Your task to perform on an android device: snooze an email in the gmail app Image 0: 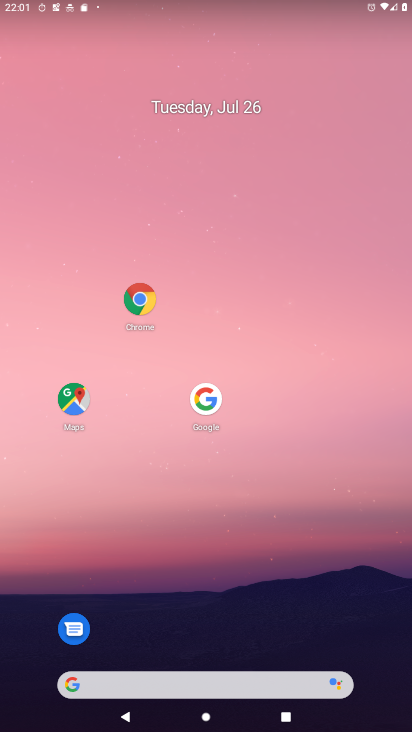
Step 0: press back button
Your task to perform on an android device: snooze an email in the gmail app Image 1: 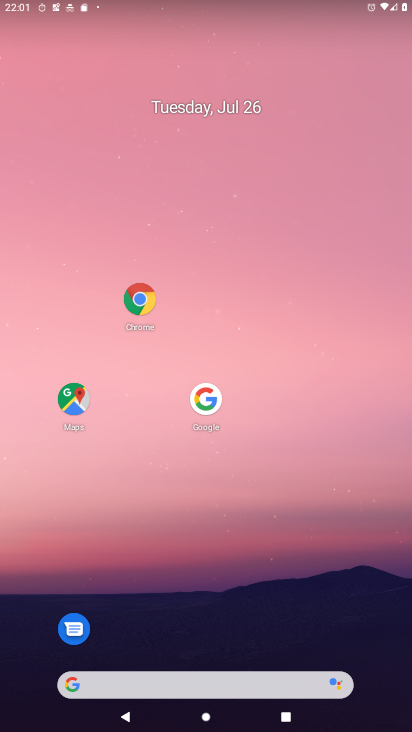
Step 1: press back button
Your task to perform on an android device: snooze an email in the gmail app Image 2: 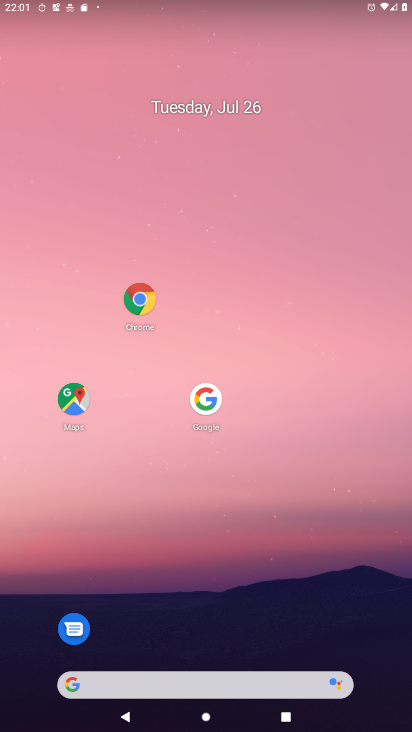
Step 2: click (95, 19)
Your task to perform on an android device: snooze an email in the gmail app Image 3: 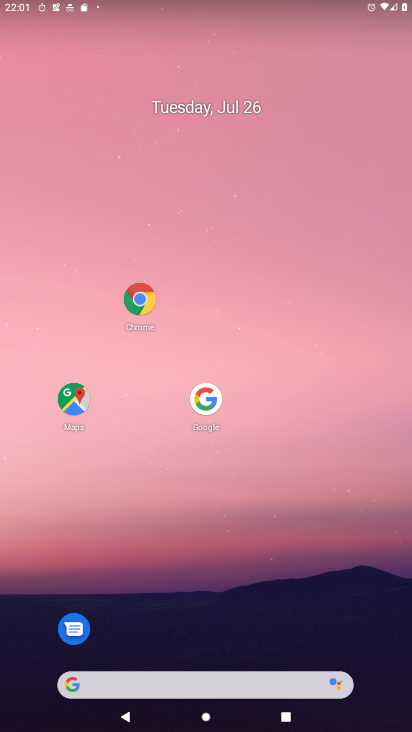
Step 3: click (160, 35)
Your task to perform on an android device: snooze an email in the gmail app Image 4: 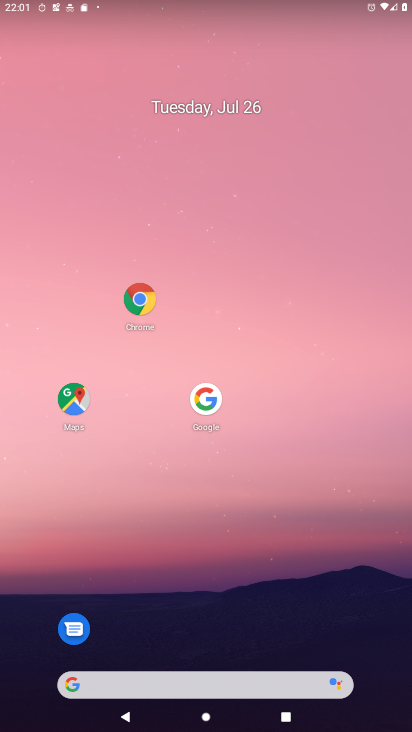
Step 4: drag from (160, 430) to (127, 172)
Your task to perform on an android device: snooze an email in the gmail app Image 5: 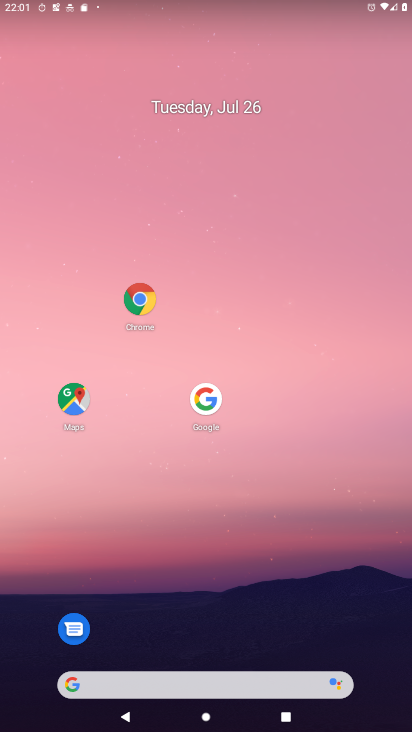
Step 5: drag from (231, 459) to (138, 69)
Your task to perform on an android device: snooze an email in the gmail app Image 6: 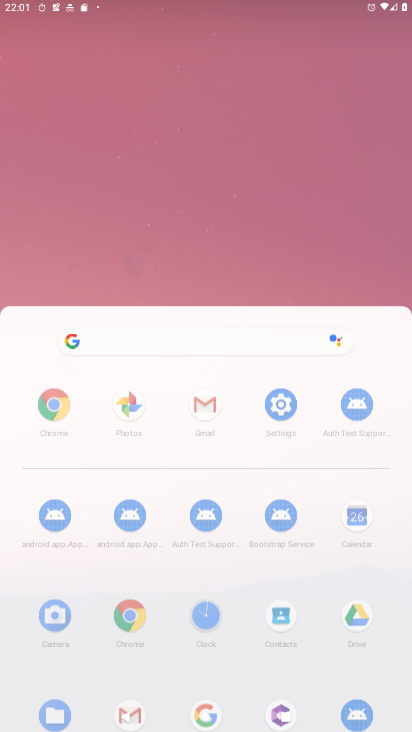
Step 6: drag from (194, 555) to (149, 280)
Your task to perform on an android device: snooze an email in the gmail app Image 7: 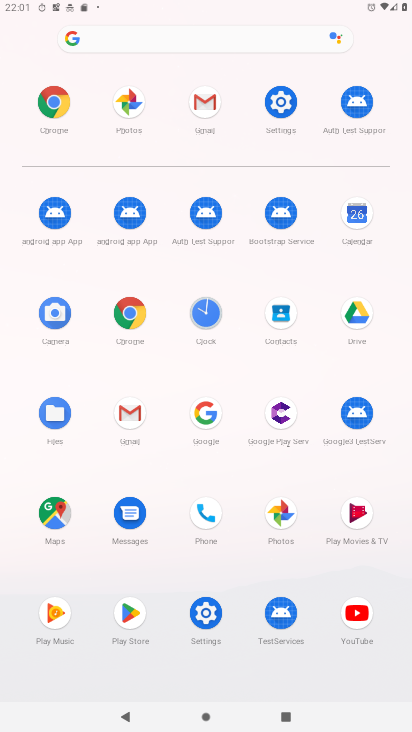
Step 7: drag from (205, 591) to (99, 61)
Your task to perform on an android device: snooze an email in the gmail app Image 8: 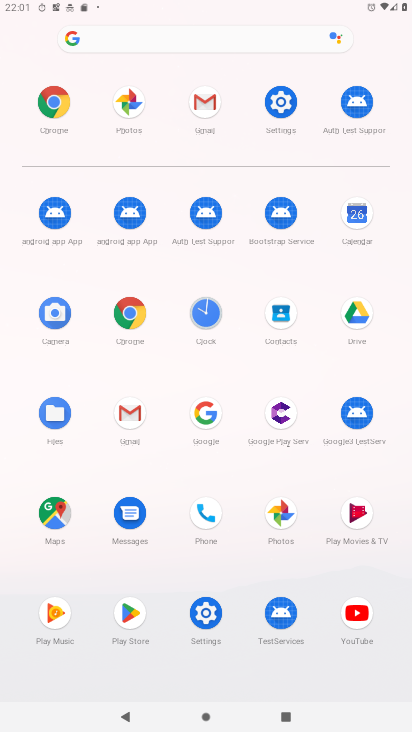
Step 8: click (124, 411)
Your task to perform on an android device: snooze an email in the gmail app Image 9: 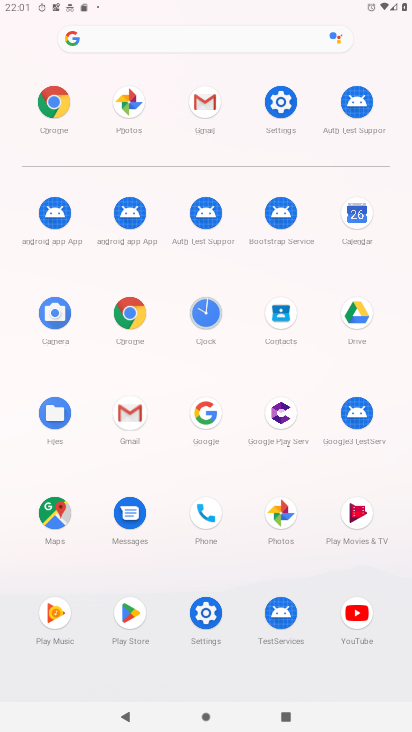
Step 9: click (128, 413)
Your task to perform on an android device: snooze an email in the gmail app Image 10: 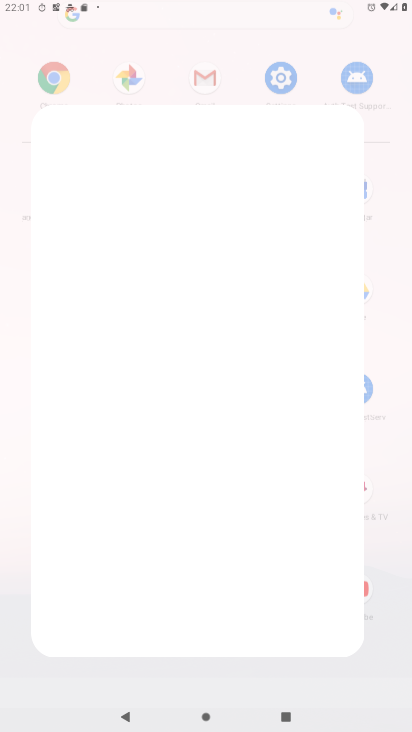
Step 10: click (128, 413)
Your task to perform on an android device: snooze an email in the gmail app Image 11: 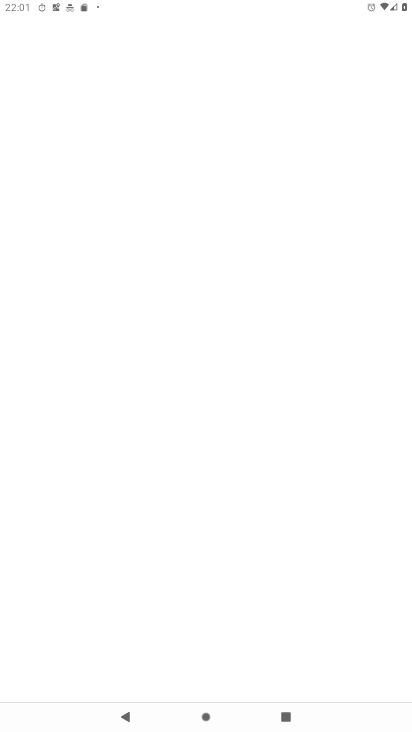
Step 11: click (129, 413)
Your task to perform on an android device: snooze an email in the gmail app Image 12: 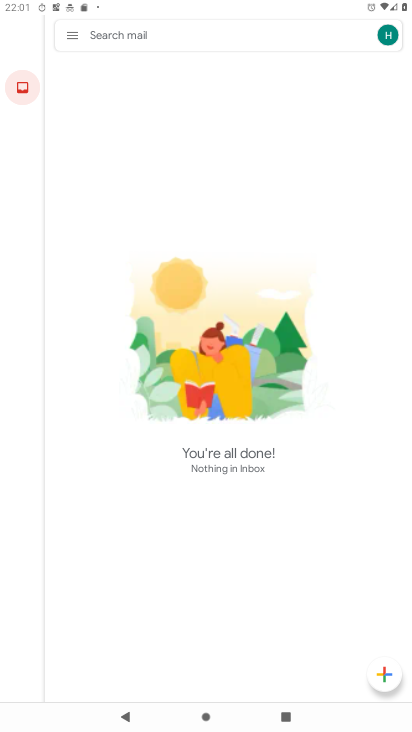
Step 12: click (64, 41)
Your task to perform on an android device: snooze an email in the gmail app Image 13: 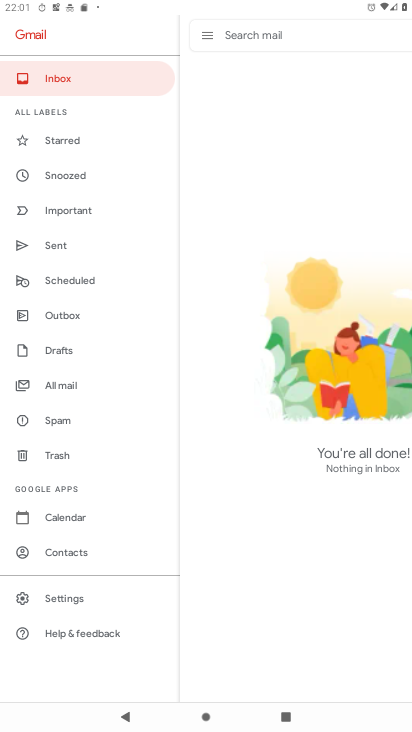
Step 13: click (61, 379)
Your task to perform on an android device: snooze an email in the gmail app Image 14: 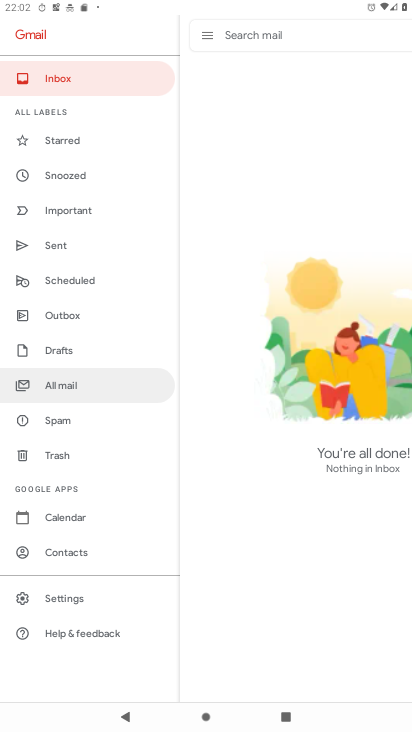
Step 14: click (63, 381)
Your task to perform on an android device: snooze an email in the gmail app Image 15: 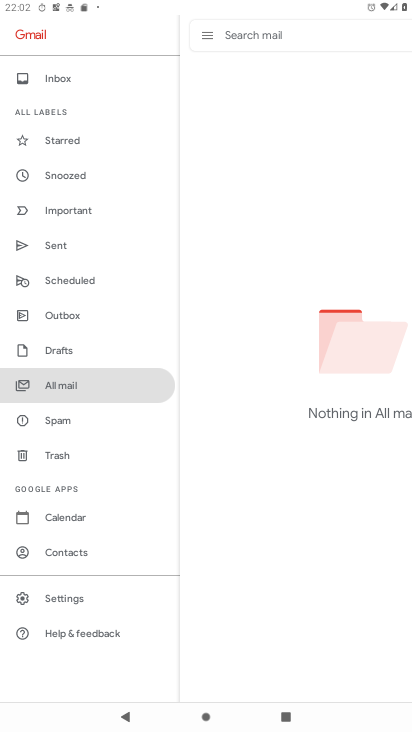
Step 15: click (70, 377)
Your task to perform on an android device: snooze an email in the gmail app Image 16: 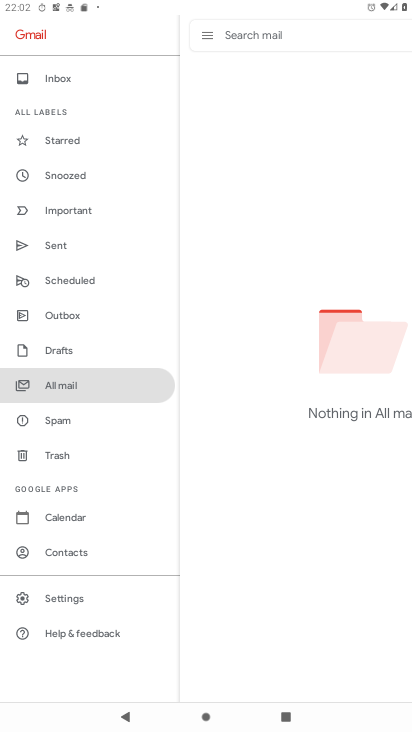
Step 16: click (211, 34)
Your task to perform on an android device: snooze an email in the gmail app Image 17: 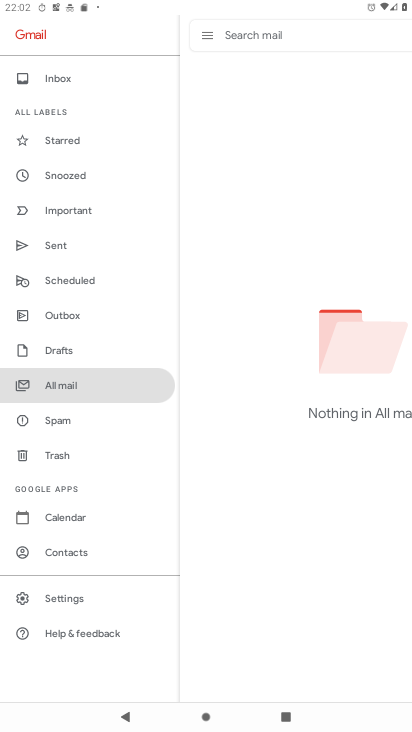
Step 17: click (211, 34)
Your task to perform on an android device: snooze an email in the gmail app Image 18: 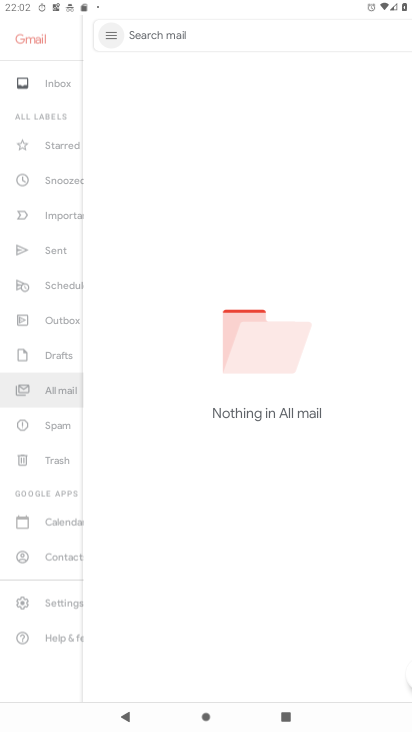
Step 18: click (209, 32)
Your task to perform on an android device: snooze an email in the gmail app Image 19: 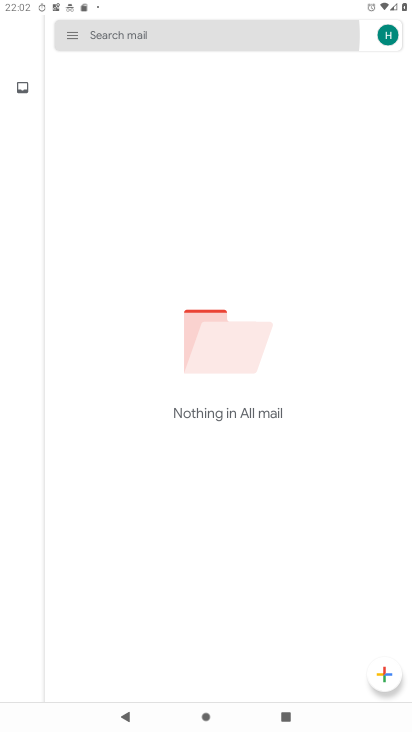
Step 19: click (209, 32)
Your task to perform on an android device: snooze an email in the gmail app Image 20: 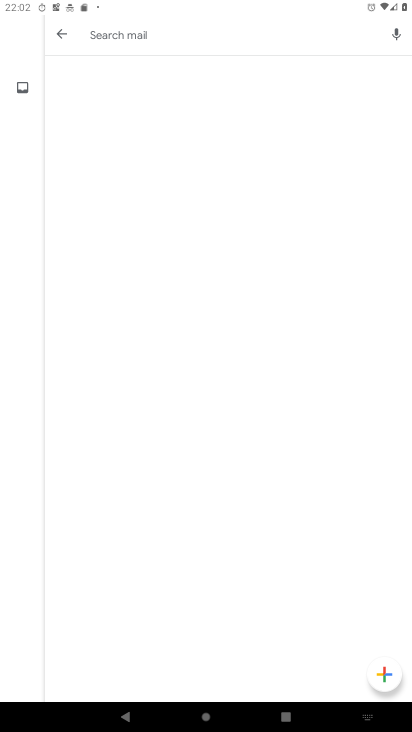
Step 20: click (61, 35)
Your task to perform on an android device: snooze an email in the gmail app Image 21: 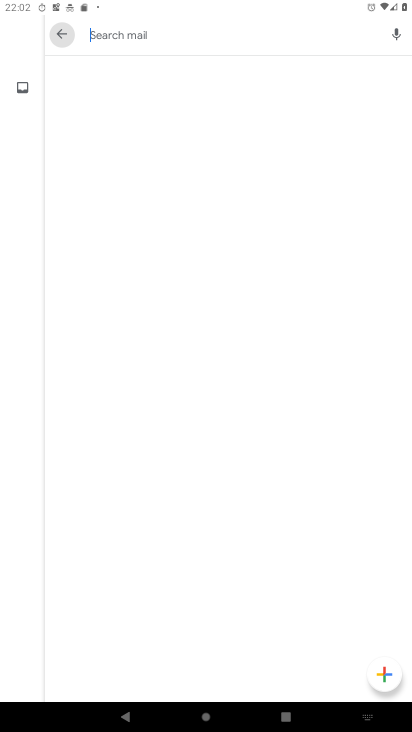
Step 21: click (56, 35)
Your task to perform on an android device: snooze an email in the gmail app Image 22: 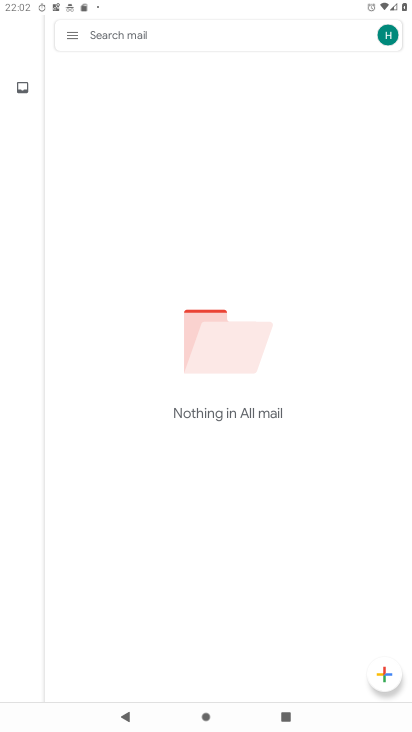
Step 22: click (77, 45)
Your task to perform on an android device: snooze an email in the gmail app Image 23: 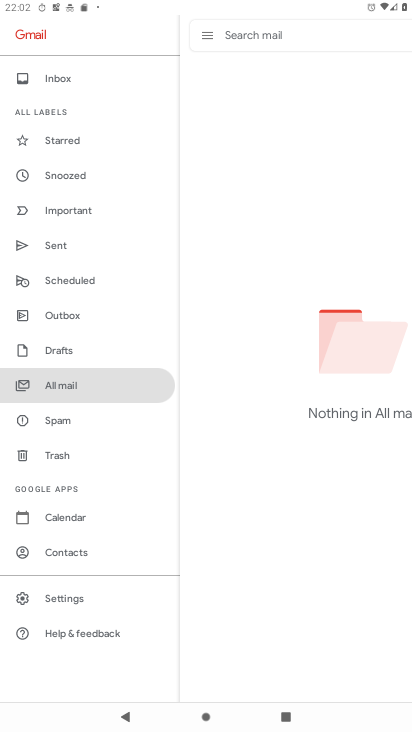
Step 23: click (202, 33)
Your task to perform on an android device: snooze an email in the gmail app Image 24: 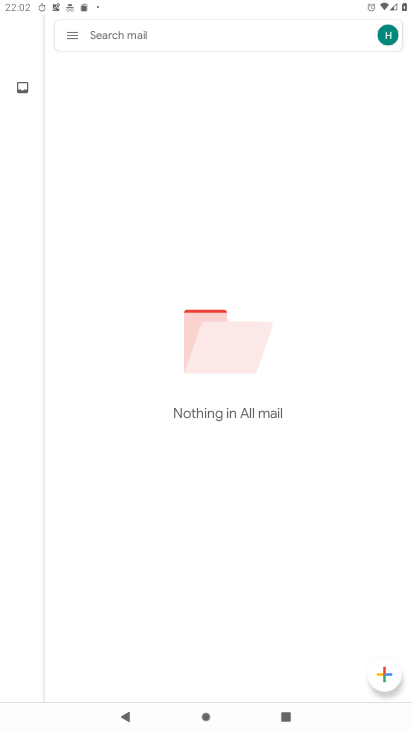
Step 24: click (75, 47)
Your task to perform on an android device: snooze an email in the gmail app Image 25: 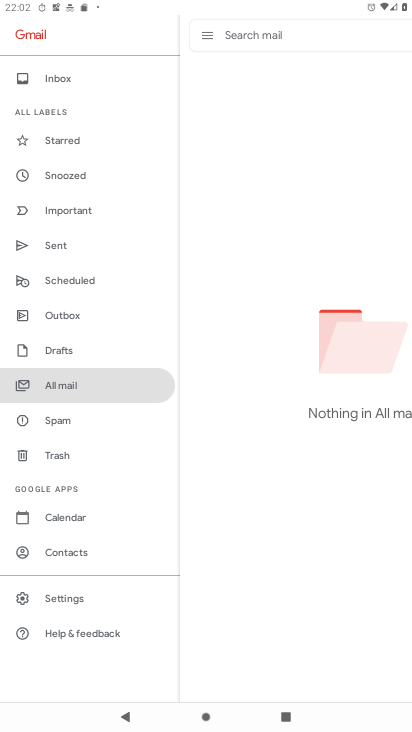
Step 25: click (61, 164)
Your task to perform on an android device: snooze an email in the gmail app Image 26: 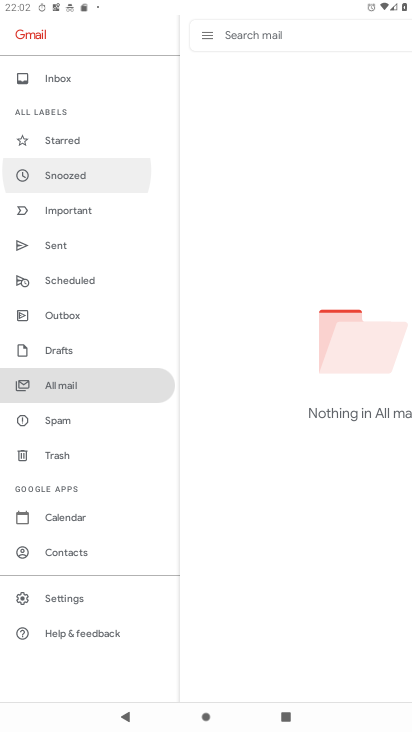
Step 26: click (66, 170)
Your task to perform on an android device: snooze an email in the gmail app Image 27: 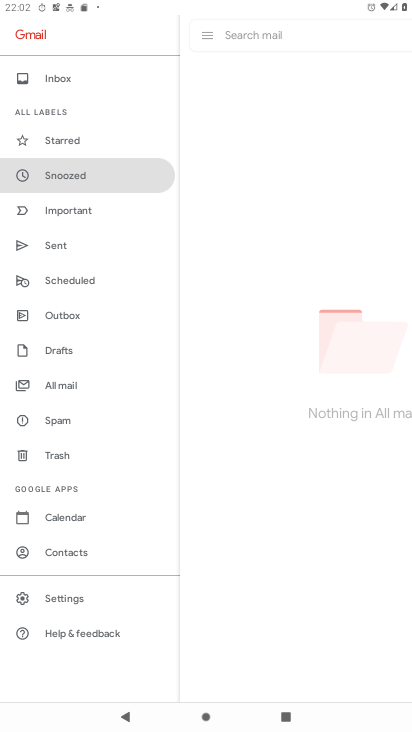
Step 27: click (65, 171)
Your task to perform on an android device: snooze an email in the gmail app Image 28: 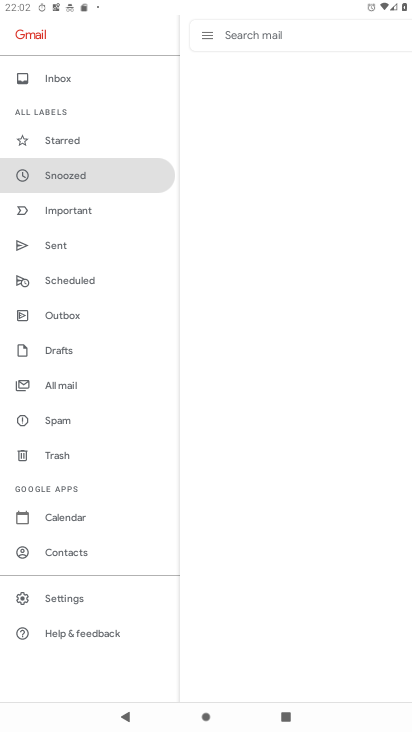
Step 28: click (66, 174)
Your task to perform on an android device: snooze an email in the gmail app Image 29: 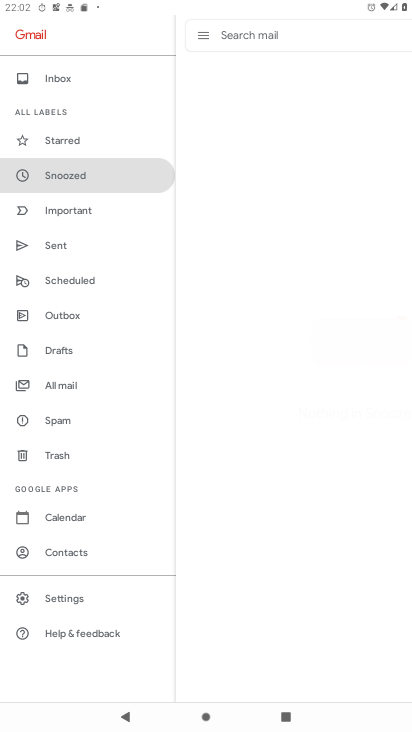
Step 29: click (66, 174)
Your task to perform on an android device: snooze an email in the gmail app Image 30: 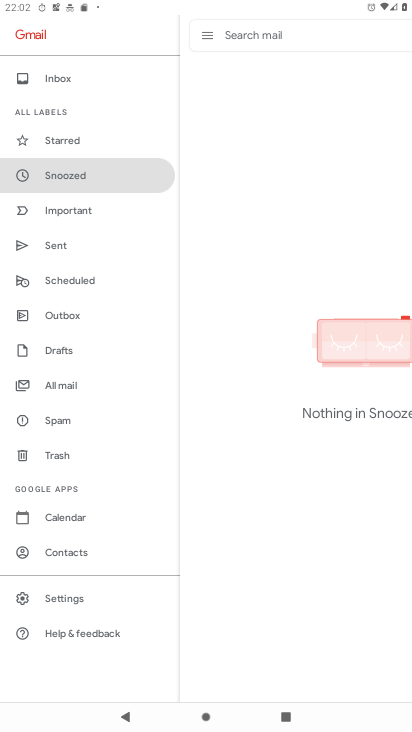
Step 30: click (200, 35)
Your task to perform on an android device: snooze an email in the gmail app Image 31: 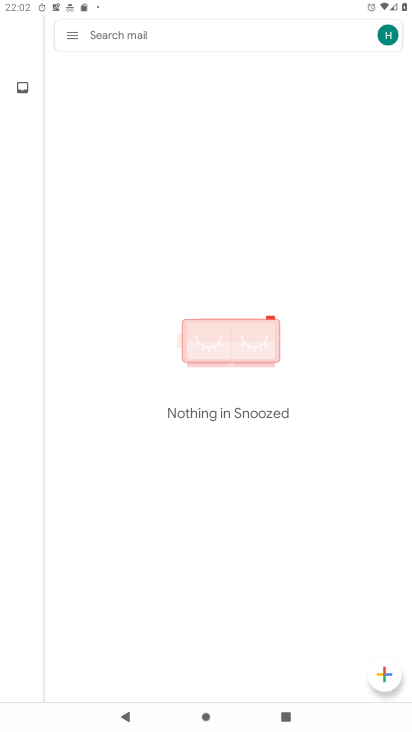
Step 31: click (71, 32)
Your task to perform on an android device: snooze an email in the gmail app Image 32: 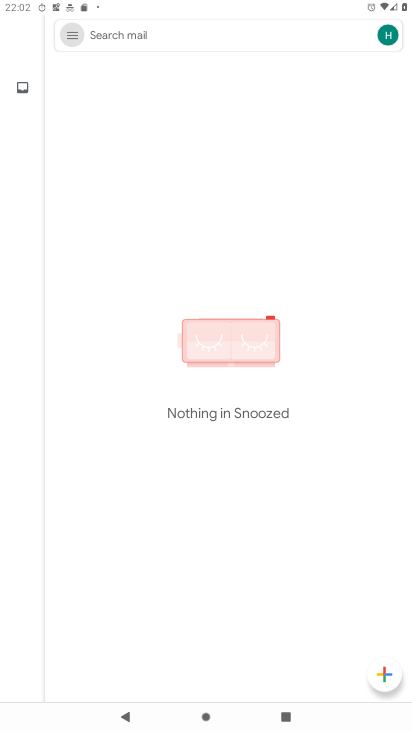
Step 32: click (71, 32)
Your task to perform on an android device: snooze an email in the gmail app Image 33: 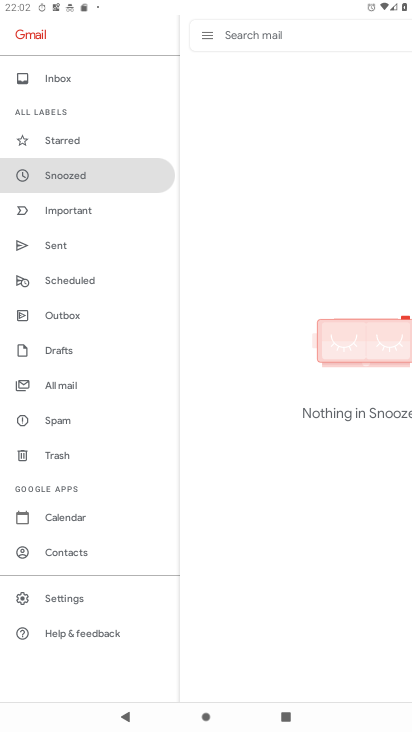
Step 33: click (71, 31)
Your task to perform on an android device: snooze an email in the gmail app Image 34: 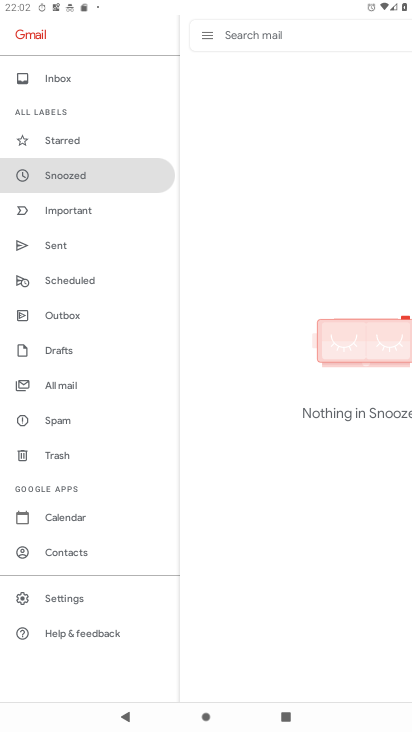
Step 34: task complete